Your task to perform on an android device: turn pop-ups off in chrome Image 0: 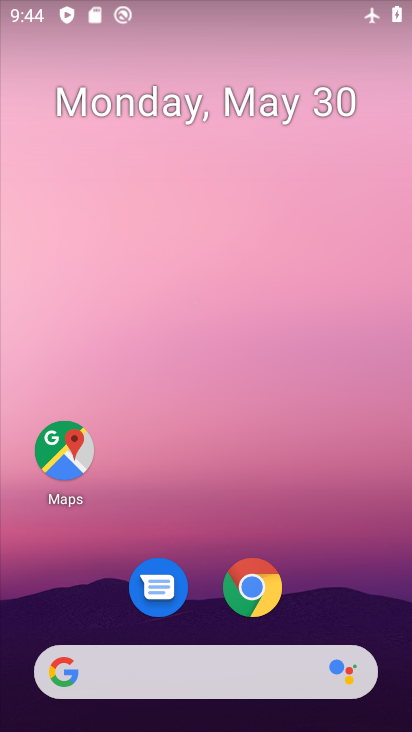
Step 0: drag from (302, 589) to (242, 7)
Your task to perform on an android device: turn pop-ups off in chrome Image 1: 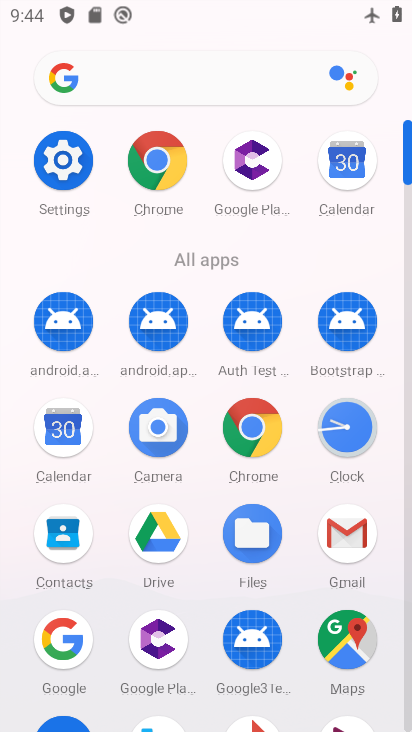
Step 1: drag from (24, 551) to (32, 198)
Your task to perform on an android device: turn pop-ups off in chrome Image 2: 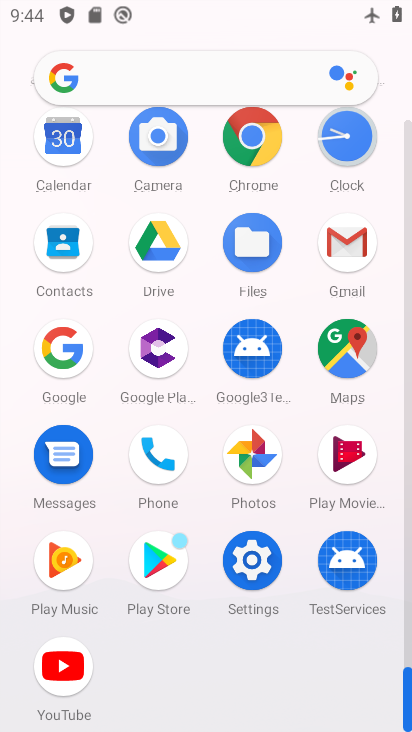
Step 2: click (254, 130)
Your task to perform on an android device: turn pop-ups off in chrome Image 3: 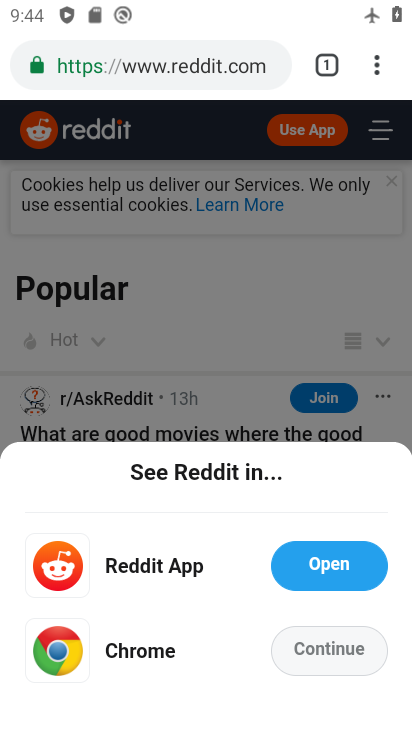
Step 3: drag from (374, 56) to (156, 630)
Your task to perform on an android device: turn pop-ups off in chrome Image 4: 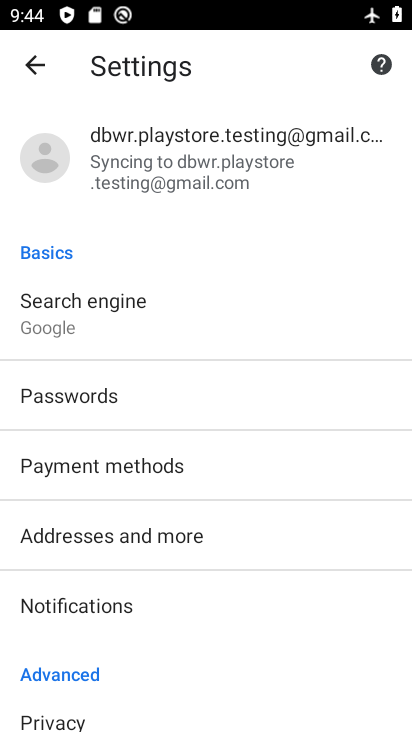
Step 4: drag from (228, 636) to (259, 200)
Your task to perform on an android device: turn pop-ups off in chrome Image 5: 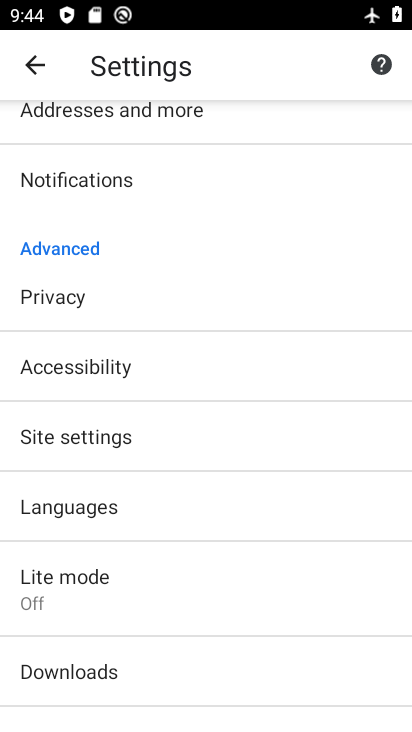
Step 5: click (121, 425)
Your task to perform on an android device: turn pop-ups off in chrome Image 6: 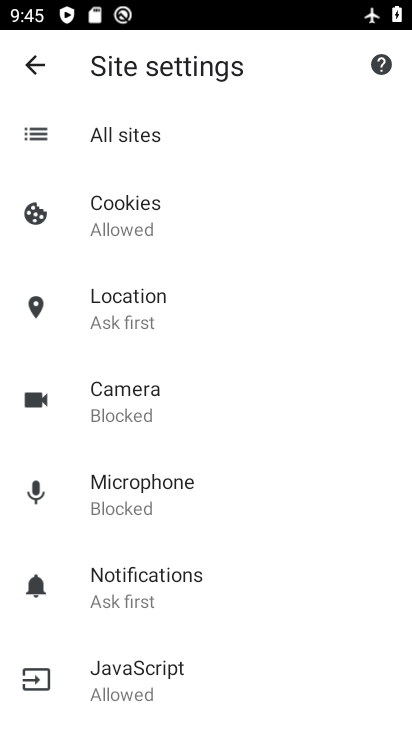
Step 6: drag from (209, 561) to (263, 193)
Your task to perform on an android device: turn pop-ups off in chrome Image 7: 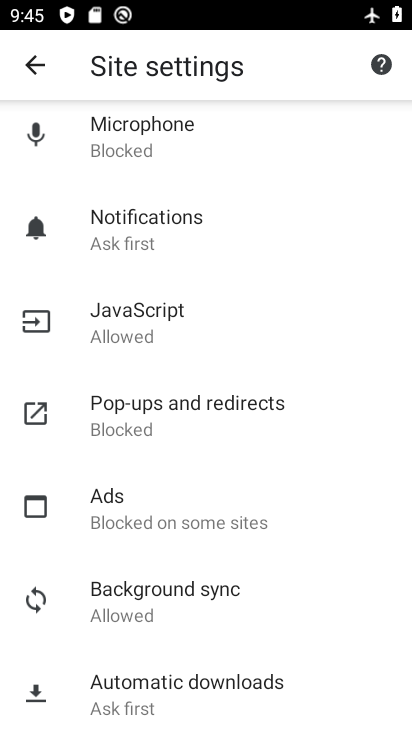
Step 7: click (150, 416)
Your task to perform on an android device: turn pop-ups off in chrome Image 8: 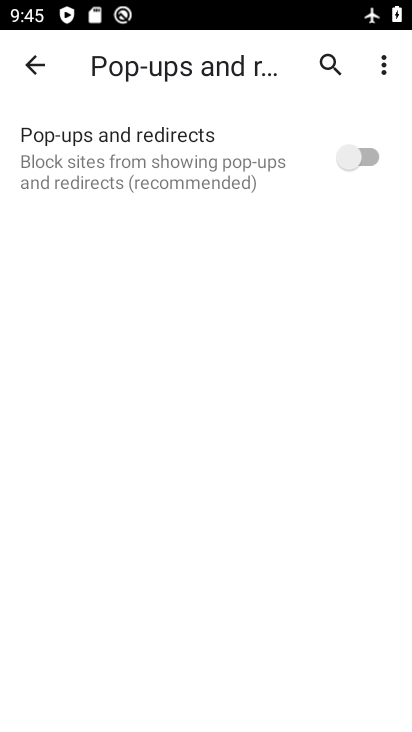
Step 8: task complete